Your task to perform on an android device: Open CNN.com Image 0: 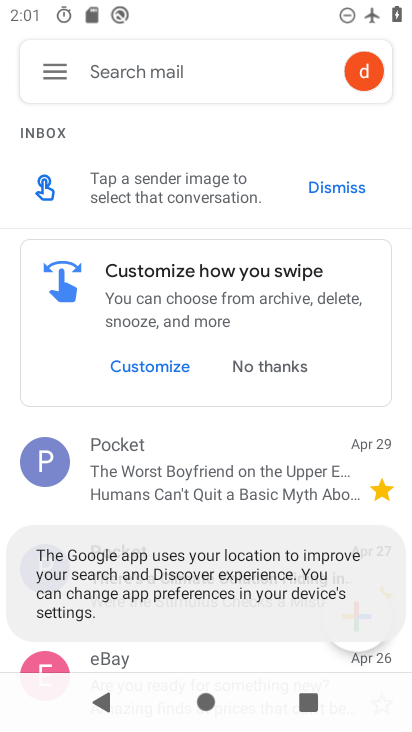
Step 0: press home button
Your task to perform on an android device: Open CNN.com Image 1: 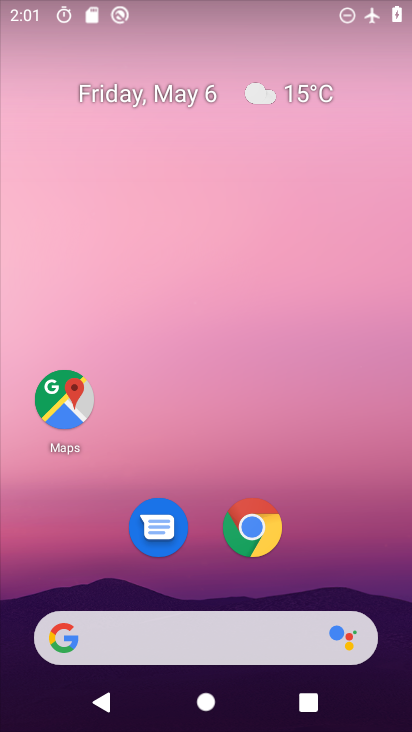
Step 1: click (258, 532)
Your task to perform on an android device: Open CNN.com Image 2: 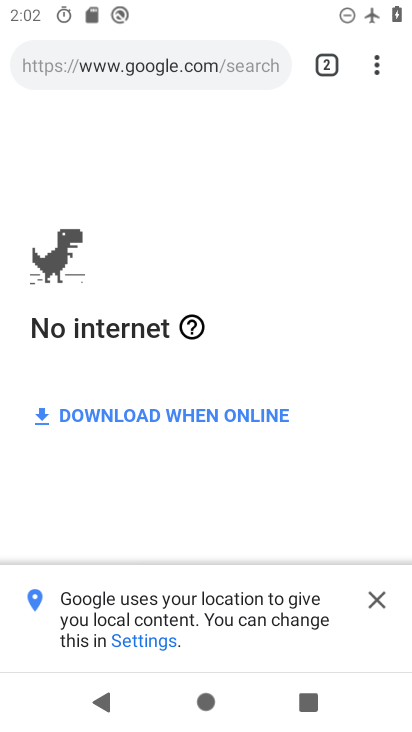
Step 2: click (328, 72)
Your task to perform on an android device: Open CNN.com Image 3: 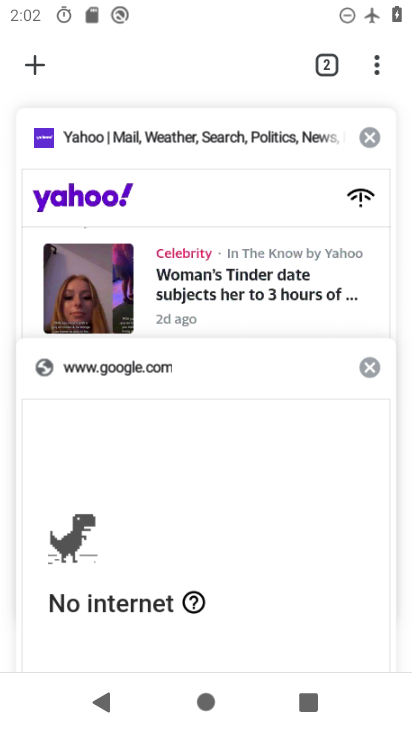
Step 3: click (39, 60)
Your task to perform on an android device: Open CNN.com Image 4: 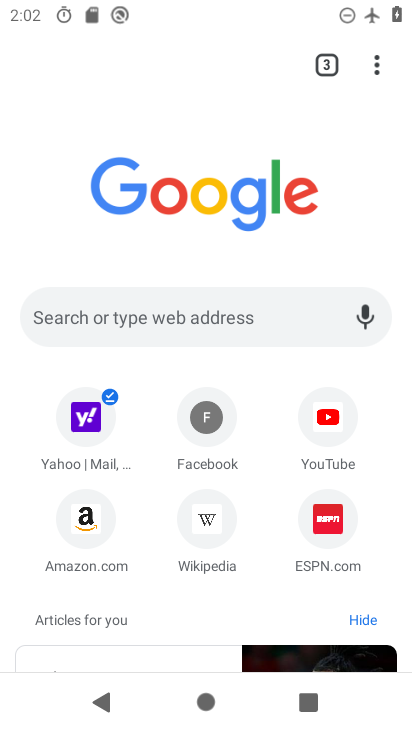
Step 4: click (132, 319)
Your task to perform on an android device: Open CNN.com Image 5: 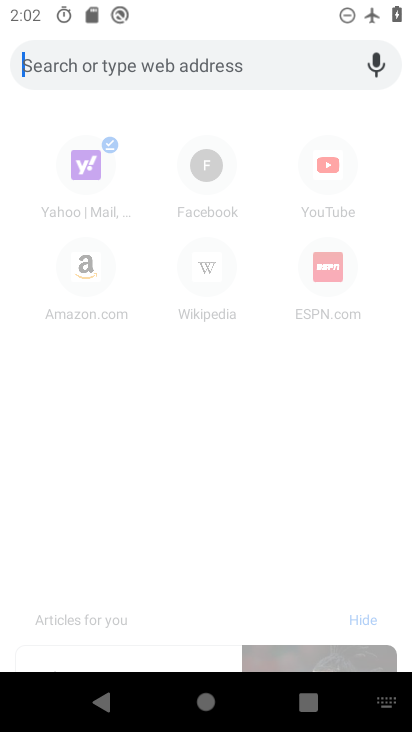
Step 5: type "cnn.com"
Your task to perform on an android device: Open CNN.com Image 6: 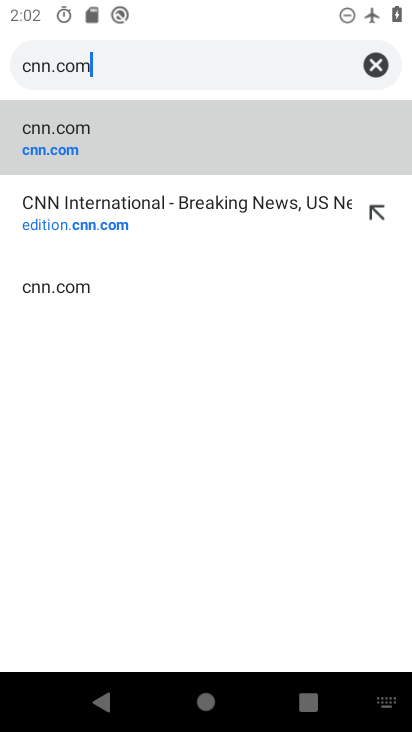
Step 6: click (36, 122)
Your task to perform on an android device: Open CNN.com Image 7: 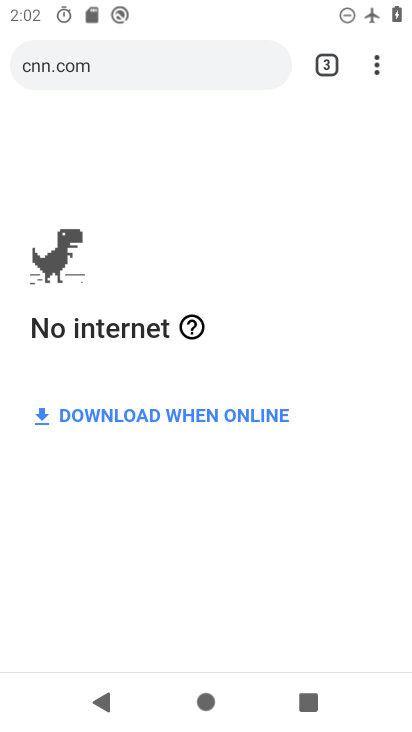
Step 7: task complete